Your task to perform on an android device: Open Chrome and go to settings Image 0: 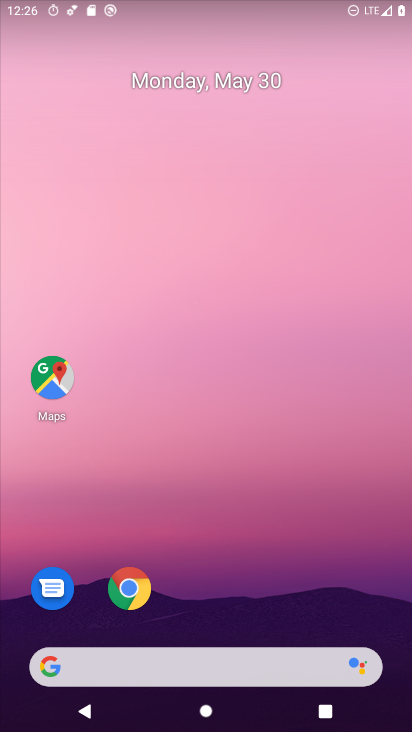
Step 0: drag from (301, 540) to (259, 61)
Your task to perform on an android device: Open Chrome and go to settings Image 1: 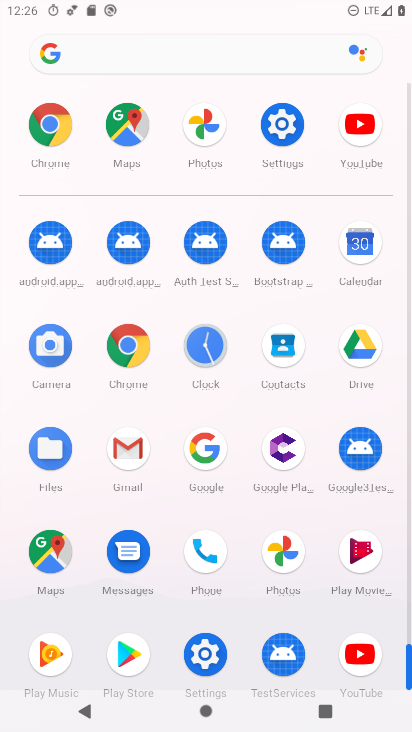
Step 1: click (144, 349)
Your task to perform on an android device: Open Chrome and go to settings Image 2: 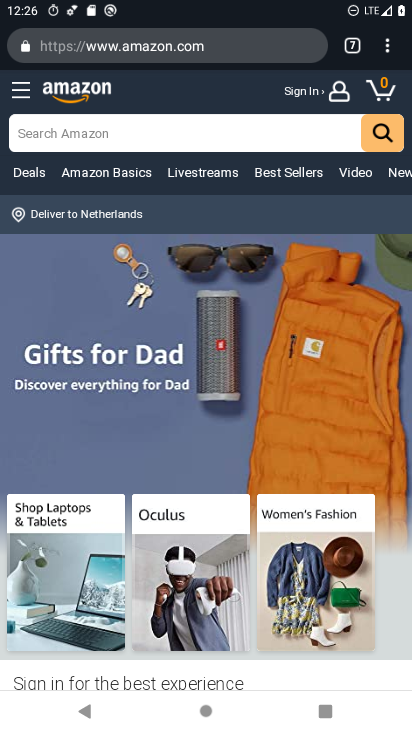
Step 2: click (391, 53)
Your task to perform on an android device: Open Chrome and go to settings Image 3: 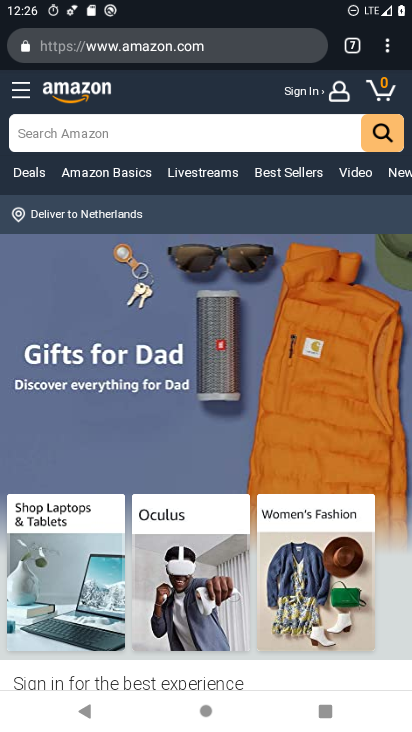
Step 3: click (385, 47)
Your task to perform on an android device: Open Chrome and go to settings Image 4: 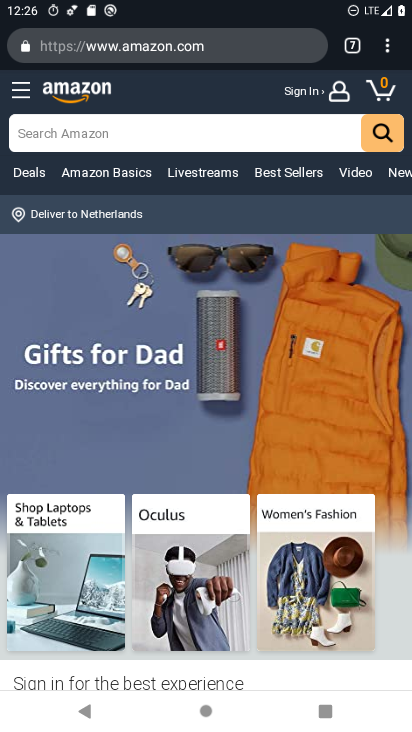
Step 4: click (386, 53)
Your task to perform on an android device: Open Chrome and go to settings Image 5: 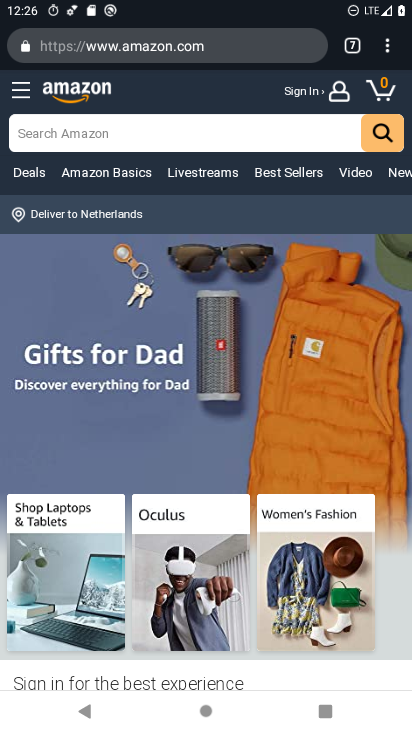
Step 5: click (392, 49)
Your task to perform on an android device: Open Chrome and go to settings Image 6: 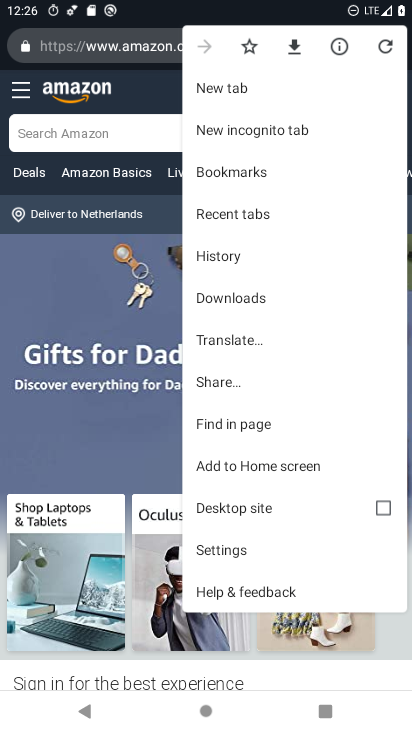
Step 6: click (253, 547)
Your task to perform on an android device: Open Chrome and go to settings Image 7: 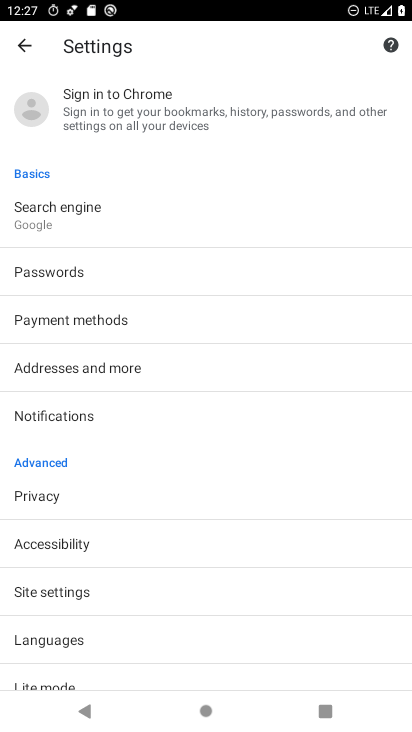
Step 7: task complete